Your task to perform on an android device: check storage Image 0: 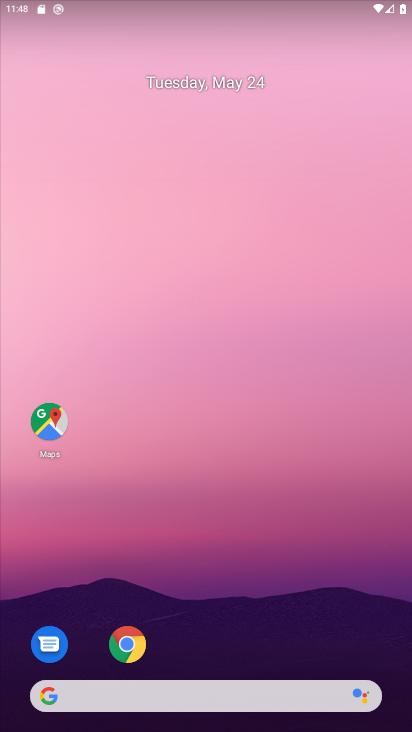
Step 0: drag from (223, 471) to (272, 240)
Your task to perform on an android device: check storage Image 1: 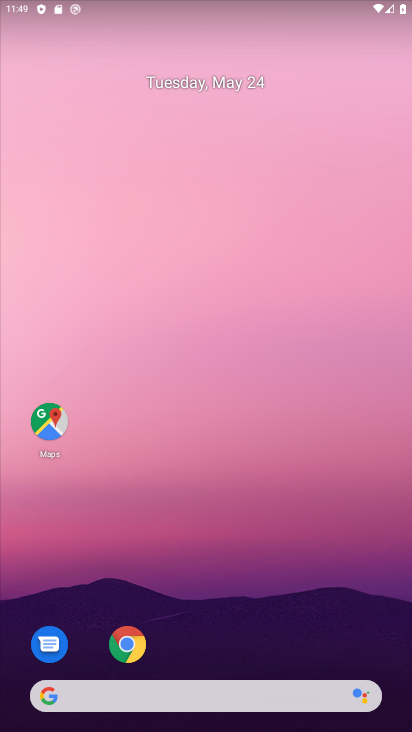
Step 1: drag from (193, 674) to (275, 274)
Your task to perform on an android device: check storage Image 2: 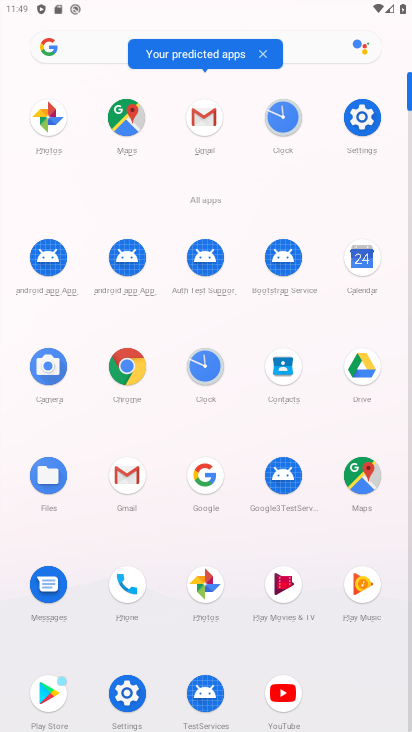
Step 2: click (121, 694)
Your task to perform on an android device: check storage Image 3: 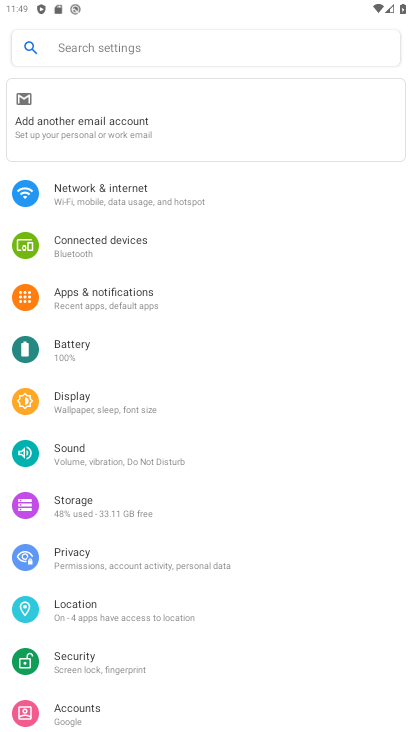
Step 3: click (127, 509)
Your task to perform on an android device: check storage Image 4: 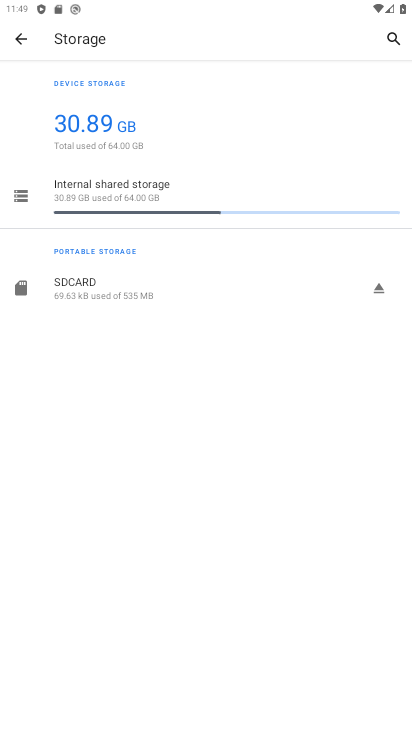
Step 4: task complete